Your task to perform on an android device: Is it going to rain today? Image 0: 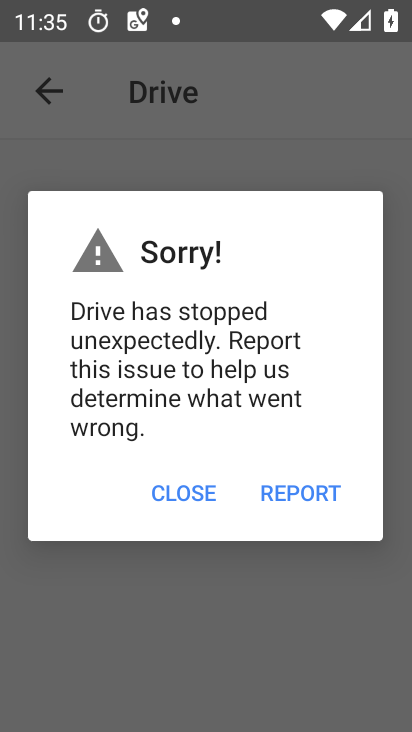
Step 0: press home button
Your task to perform on an android device: Is it going to rain today? Image 1: 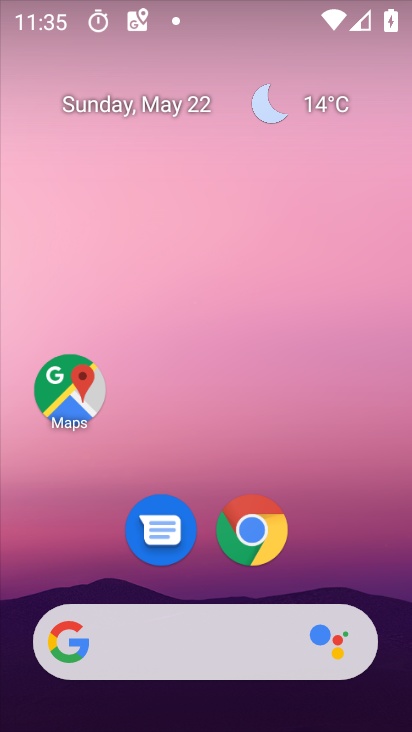
Step 1: click (325, 93)
Your task to perform on an android device: Is it going to rain today? Image 2: 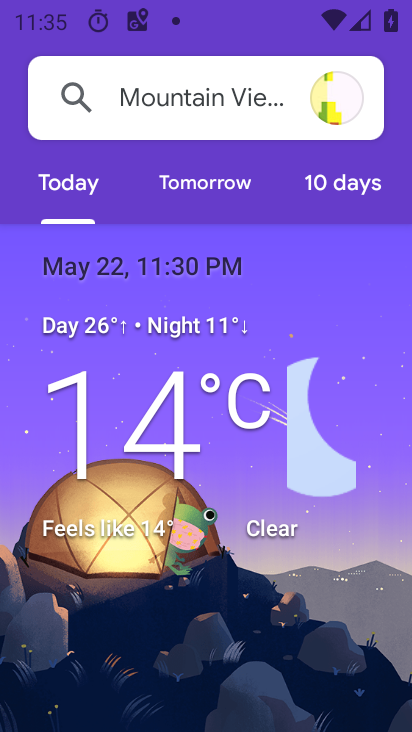
Step 2: task complete